Your task to perform on an android device: What's the weather today? Image 0: 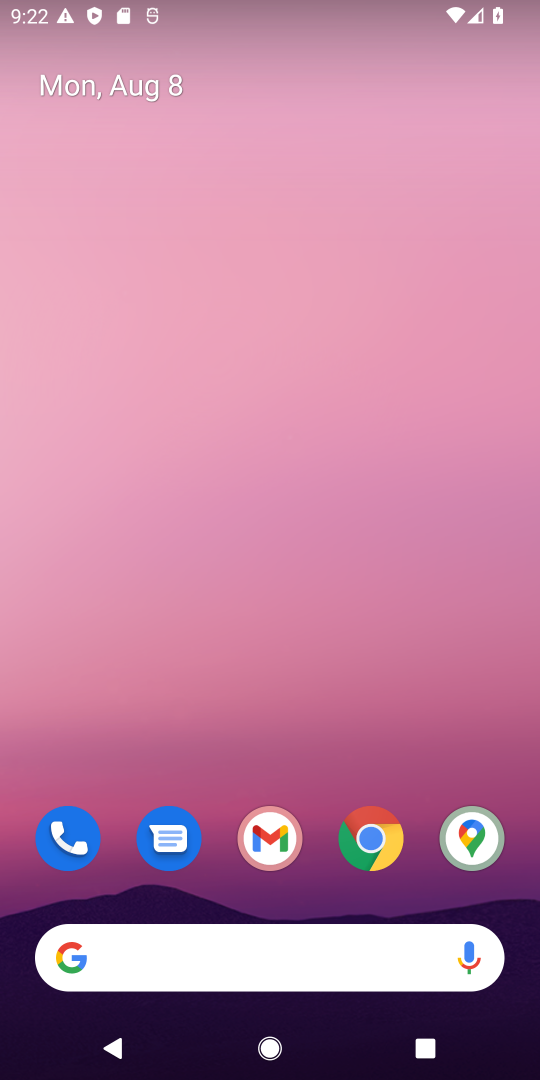
Step 0: press home button
Your task to perform on an android device: What's the weather today? Image 1: 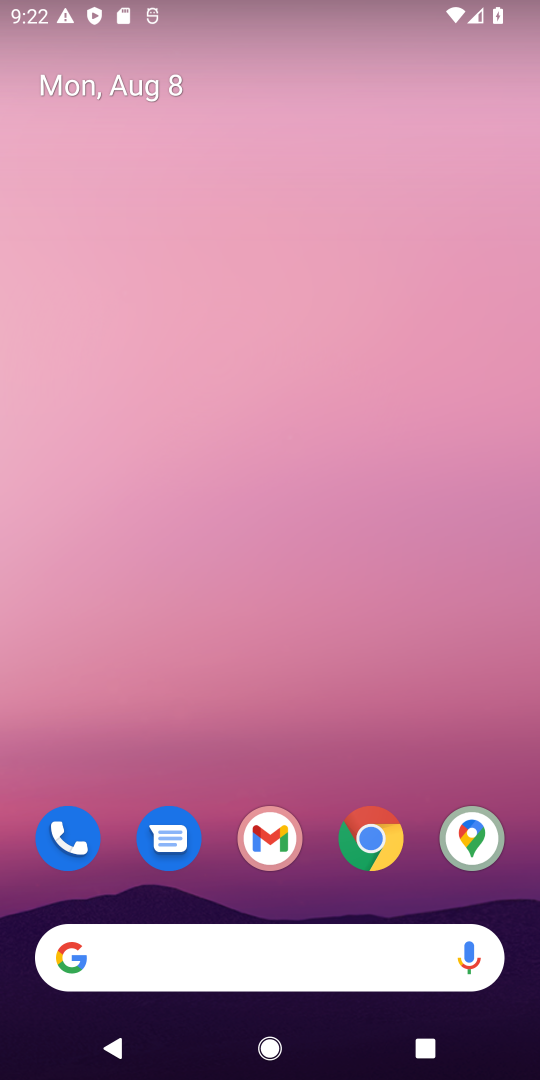
Step 1: click (63, 983)
Your task to perform on an android device: What's the weather today? Image 2: 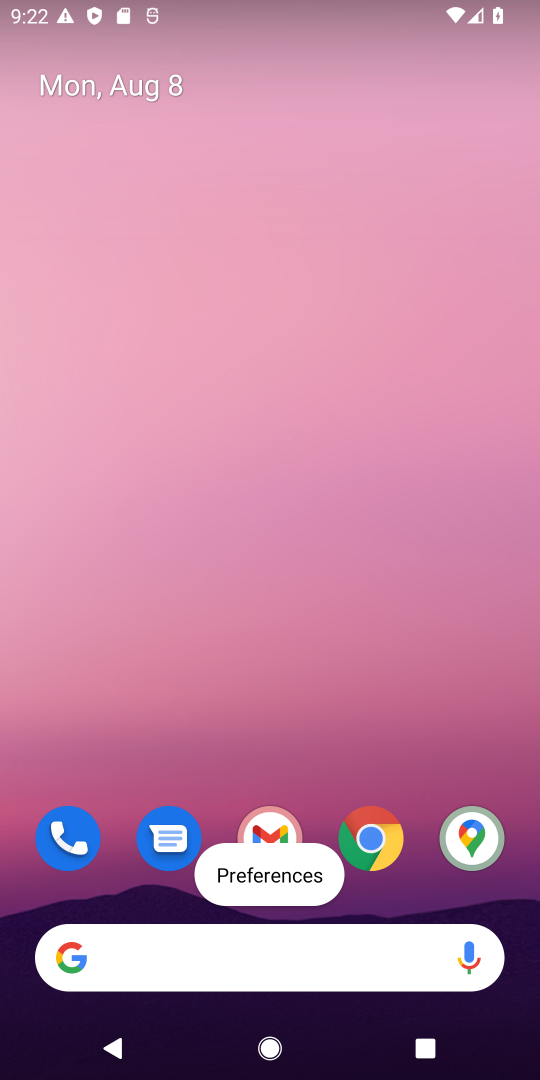
Step 2: click (84, 969)
Your task to perform on an android device: What's the weather today? Image 3: 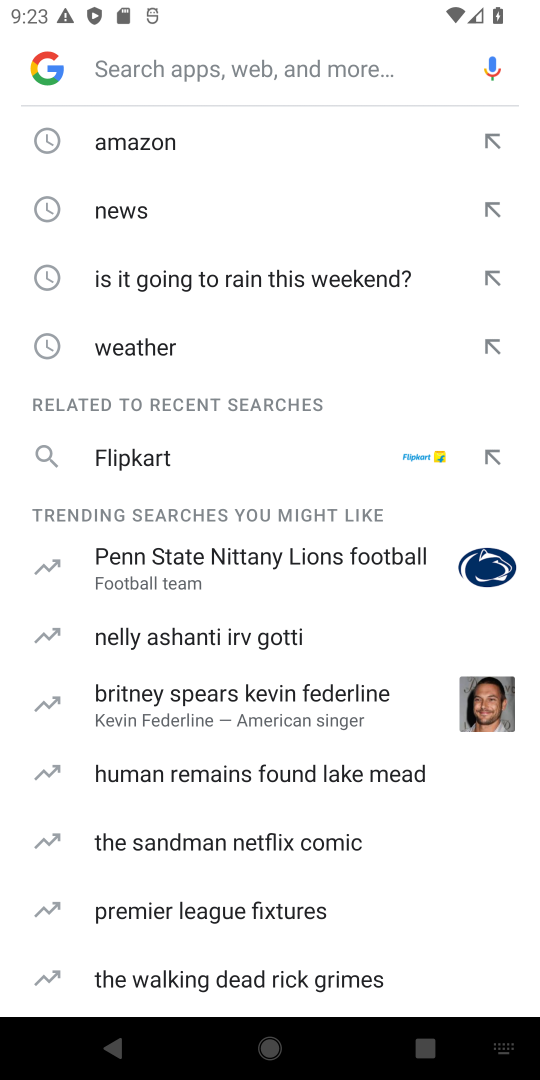
Step 3: type "weather today?"
Your task to perform on an android device: What's the weather today? Image 4: 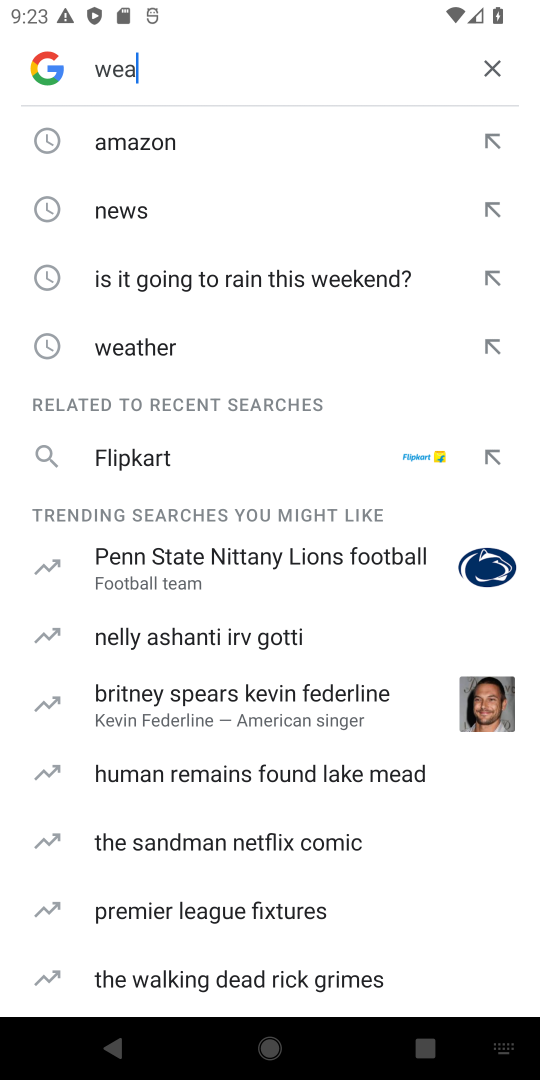
Step 4: press enter
Your task to perform on an android device: What's the weather today? Image 5: 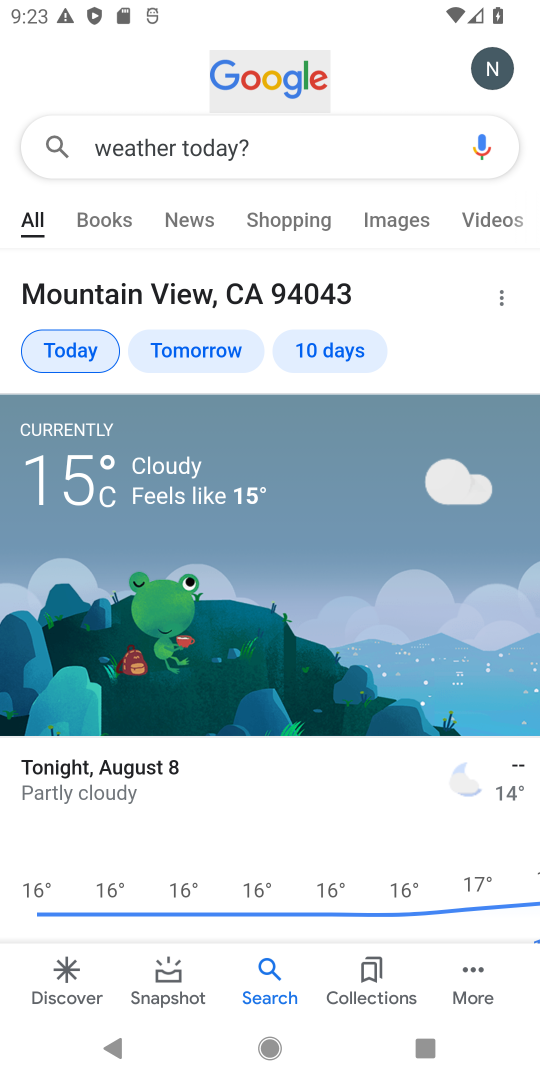
Step 5: task complete